Your task to perform on an android device: Show me the alarms in the clock app Image 0: 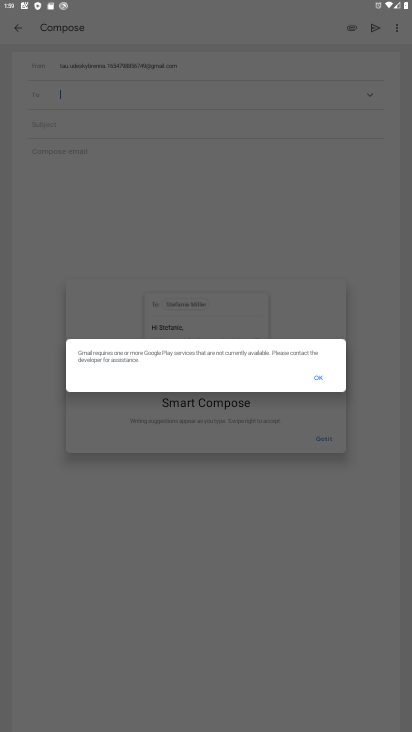
Step 0: click (312, 378)
Your task to perform on an android device: Show me the alarms in the clock app Image 1: 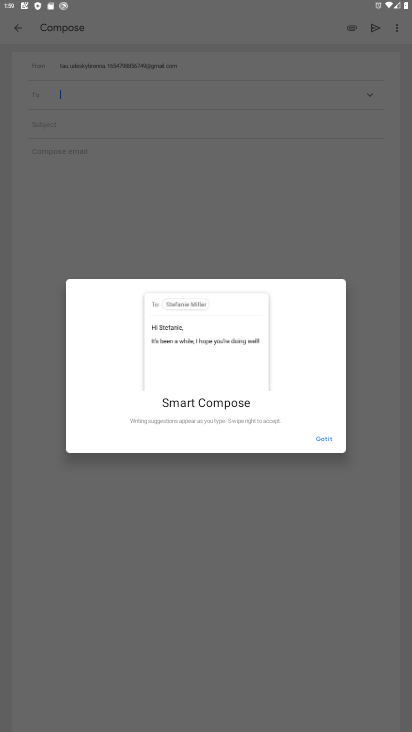
Step 1: press home button
Your task to perform on an android device: Show me the alarms in the clock app Image 2: 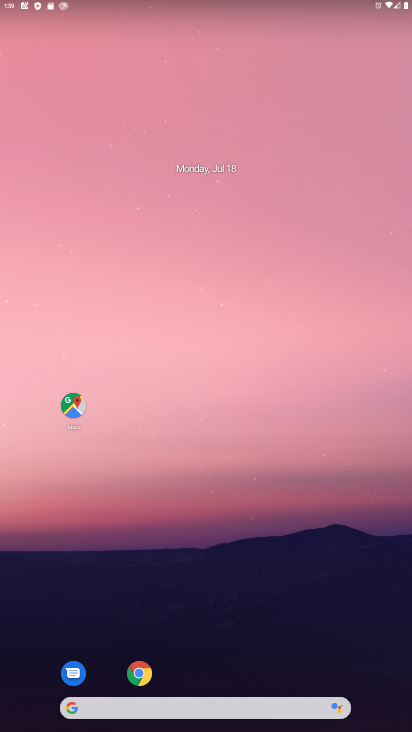
Step 2: drag from (233, 678) to (242, 16)
Your task to perform on an android device: Show me the alarms in the clock app Image 3: 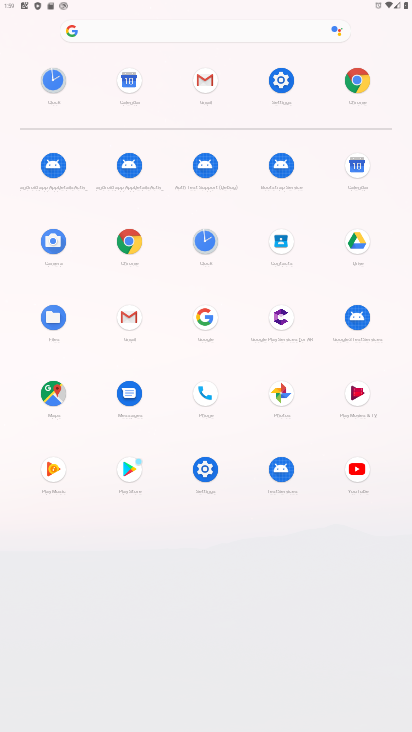
Step 3: click (41, 93)
Your task to perform on an android device: Show me the alarms in the clock app Image 4: 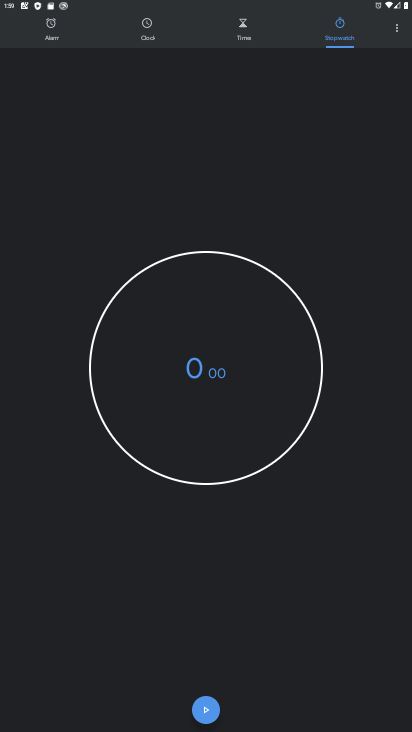
Step 4: click (68, 47)
Your task to perform on an android device: Show me the alarms in the clock app Image 5: 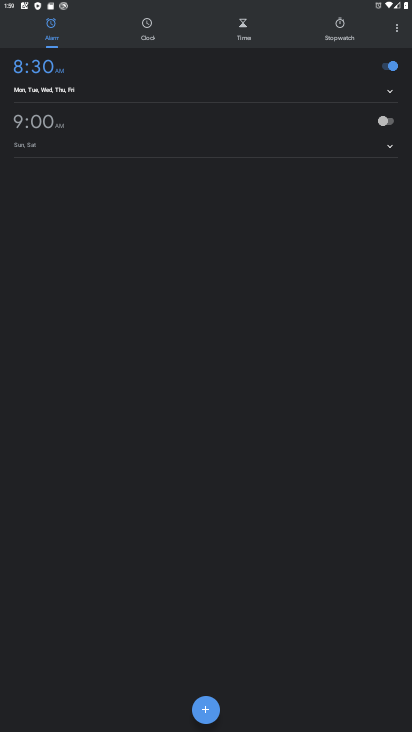
Step 5: task complete